Your task to perform on an android device: refresh tabs in the chrome app Image 0: 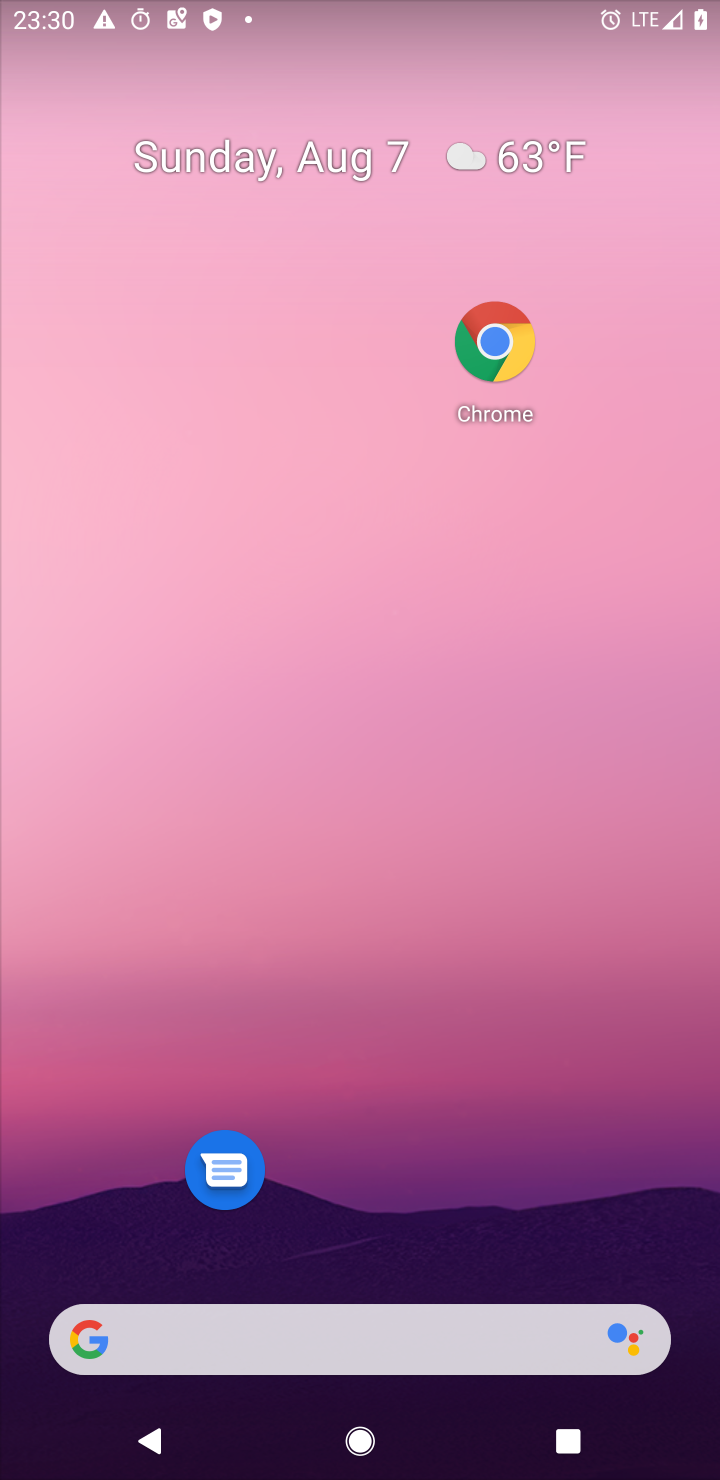
Step 0: drag from (433, 1341) to (555, 33)
Your task to perform on an android device: refresh tabs in the chrome app Image 1: 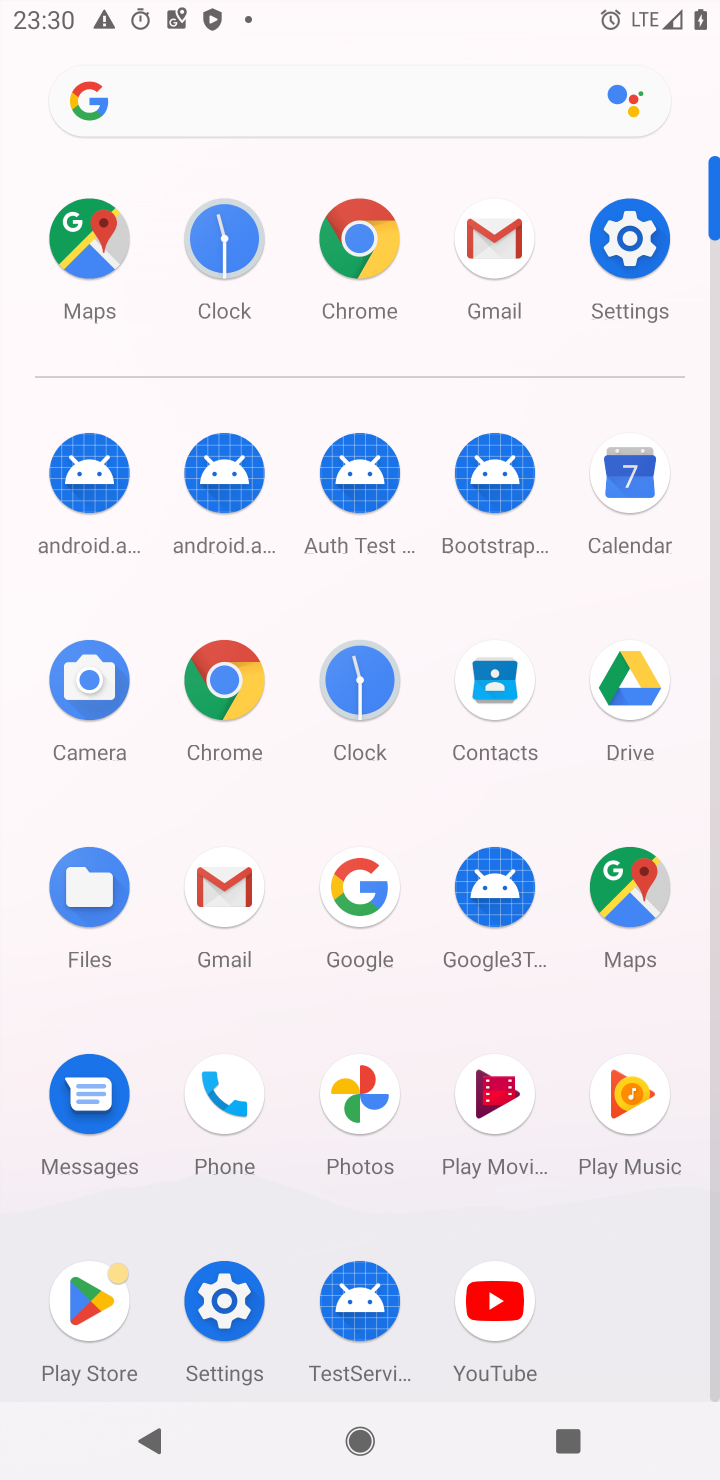
Step 1: click (214, 652)
Your task to perform on an android device: refresh tabs in the chrome app Image 2: 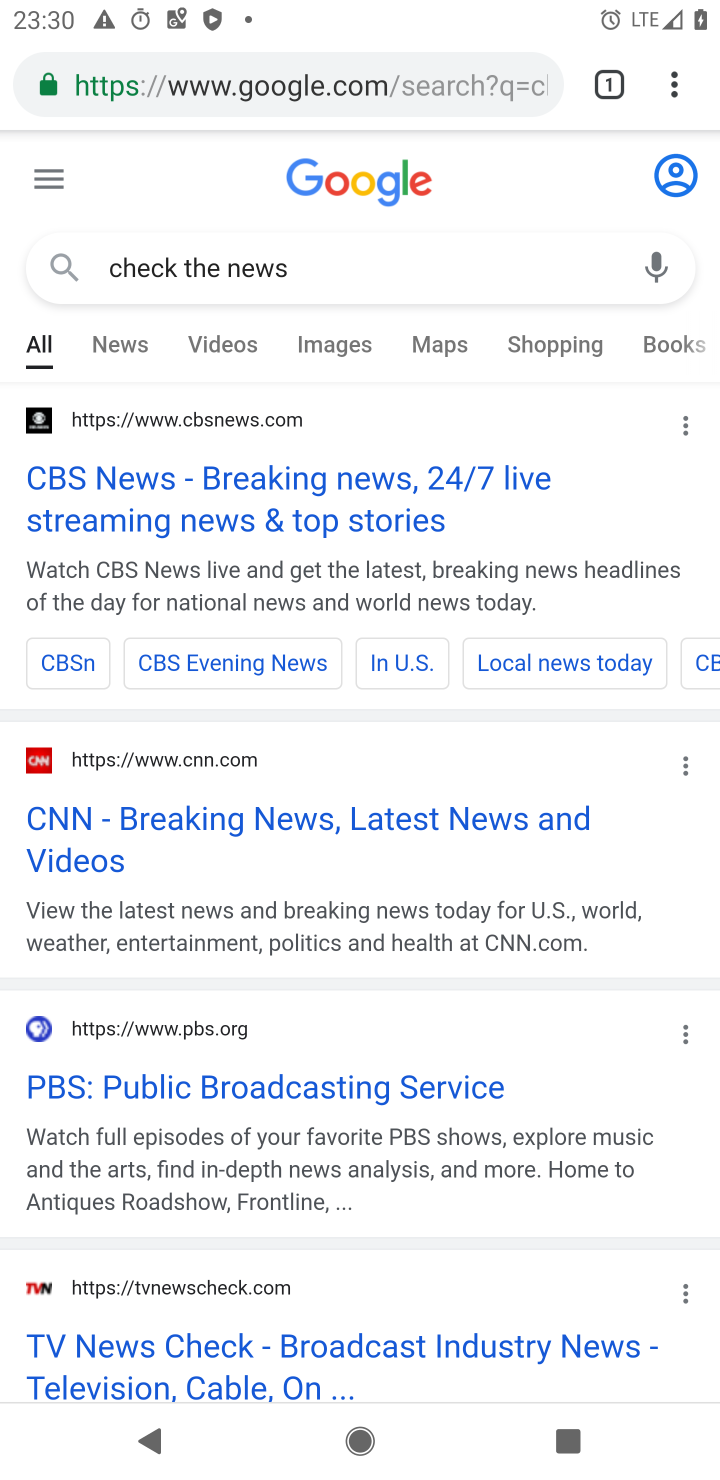
Step 2: click (673, 88)
Your task to perform on an android device: refresh tabs in the chrome app Image 3: 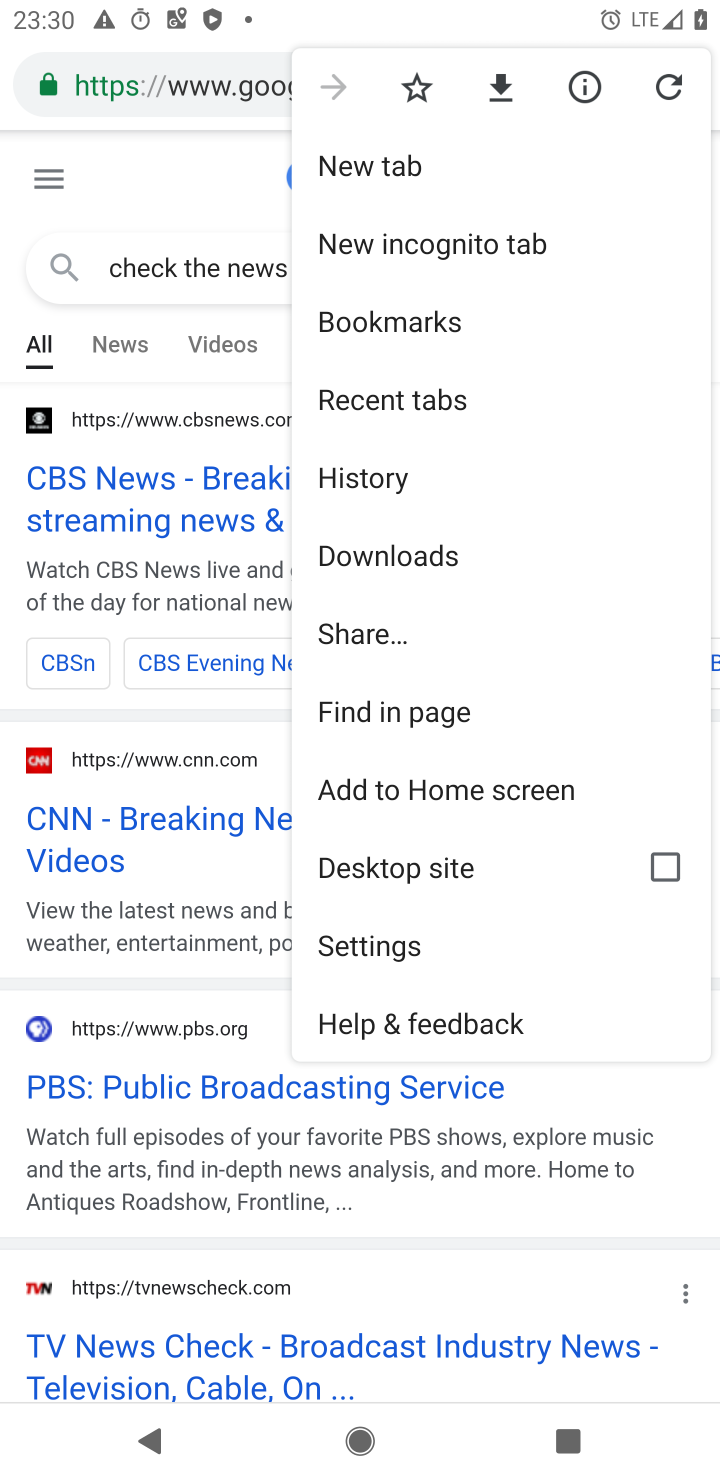
Step 3: click (673, 78)
Your task to perform on an android device: refresh tabs in the chrome app Image 4: 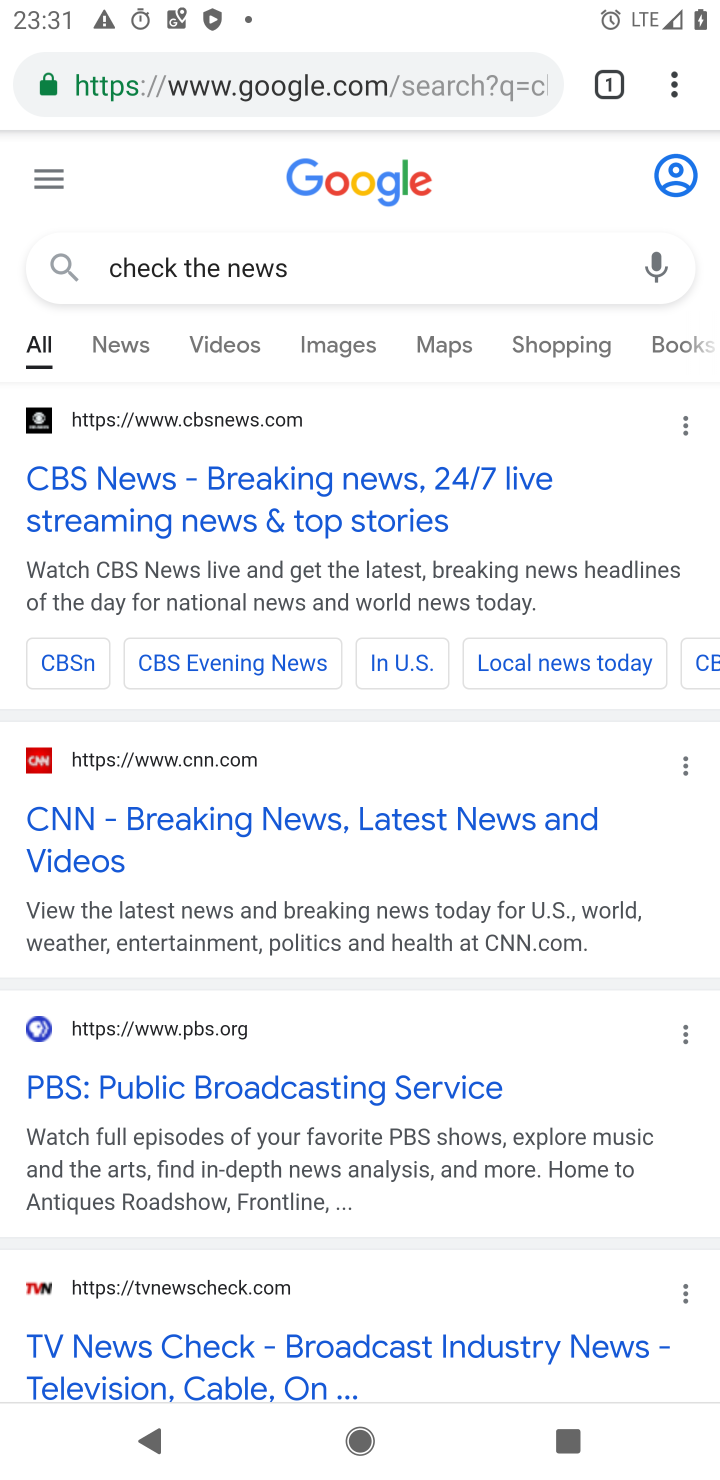
Step 4: task complete